Your task to perform on an android device: set an alarm Image 0: 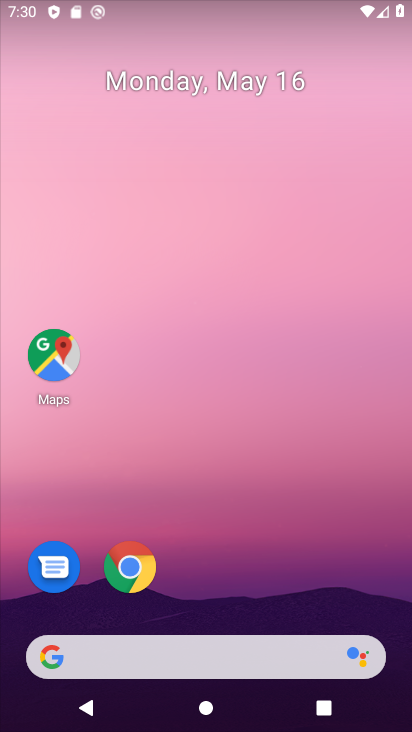
Step 0: drag from (186, 630) to (233, 186)
Your task to perform on an android device: set an alarm Image 1: 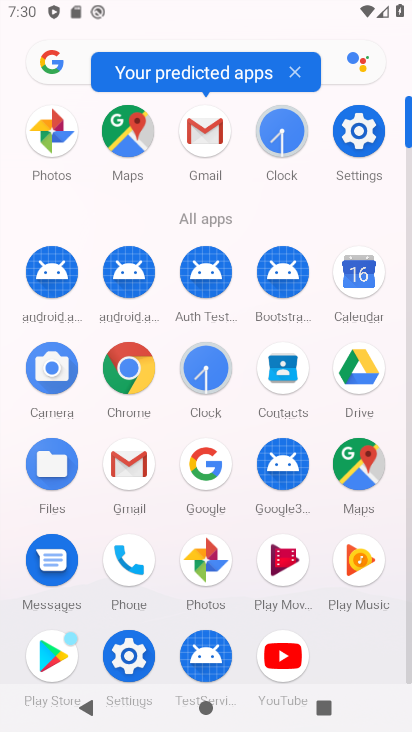
Step 1: click (285, 135)
Your task to perform on an android device: set an alarm Image 2: 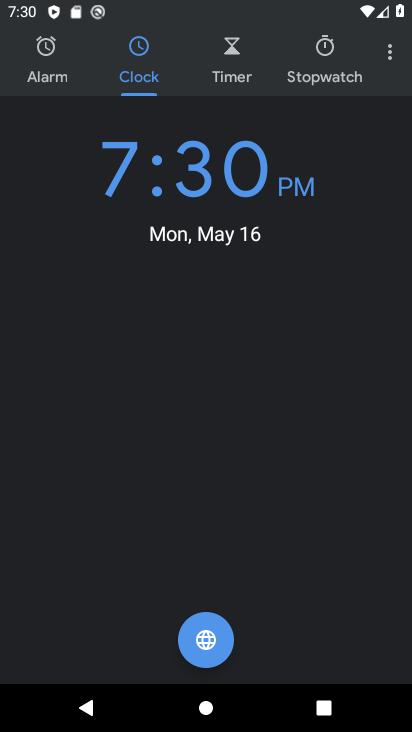
Step 2: click (45, 69)
Your task to perform on an android device: set an alarm Image 3: 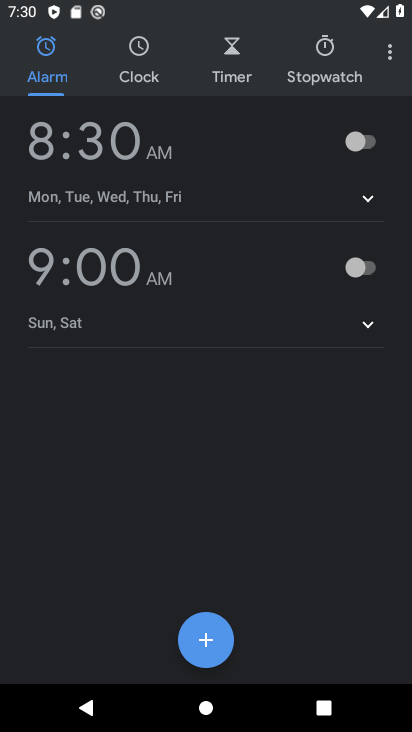
Step 3: click (367, 138)
Your task to perform on an android device: set an alarm Image 4: 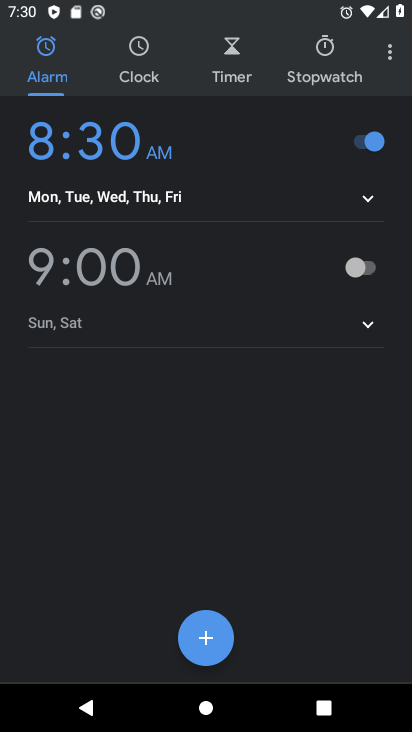
Step 4: task complete